Your task to perform on an android device: Go to accessibility settings Image 0: 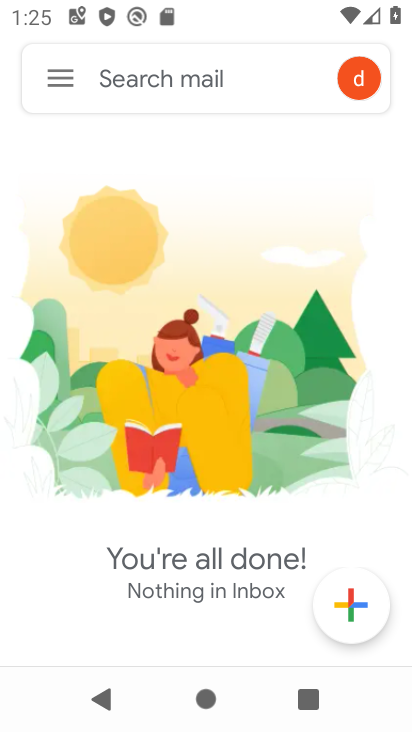
Step 0: press home button
Your task to perform on an android device: Go to accessibility settings Image 1: 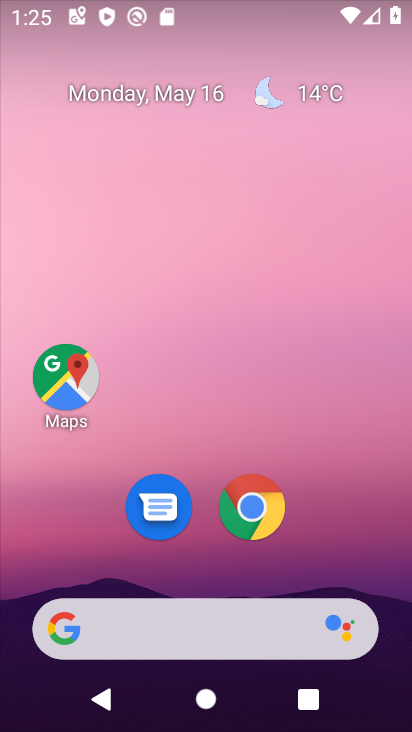
Step 1: drag from (244, 493) to (273, 265)
Your task to perform on an android device: Go to accessibility settings Image 2: 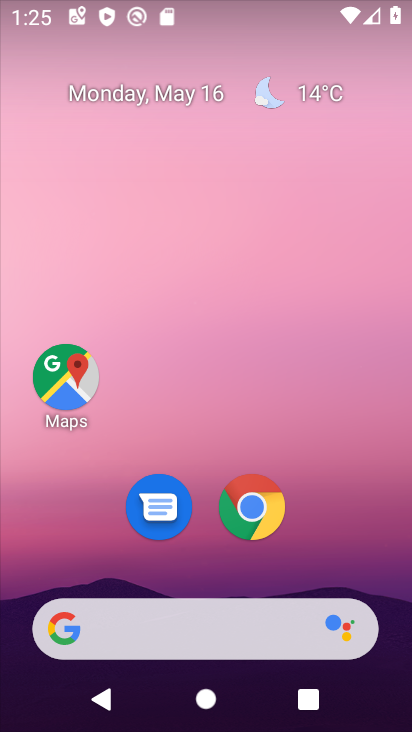
Step 2: drag from (210, 562) to (250, 287)
Your task to perform on an android device: Go to accessibility settings Image 3: 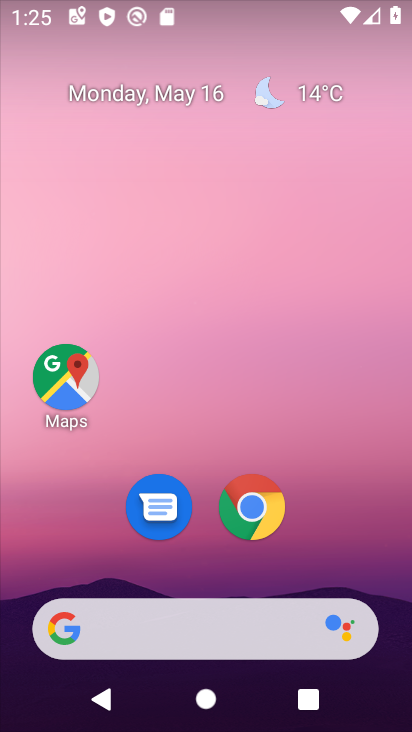
Step 3: drag from (214, 572) to (245, 244)
Your task to perform on an android device: Go to accessibility settings Image 4: 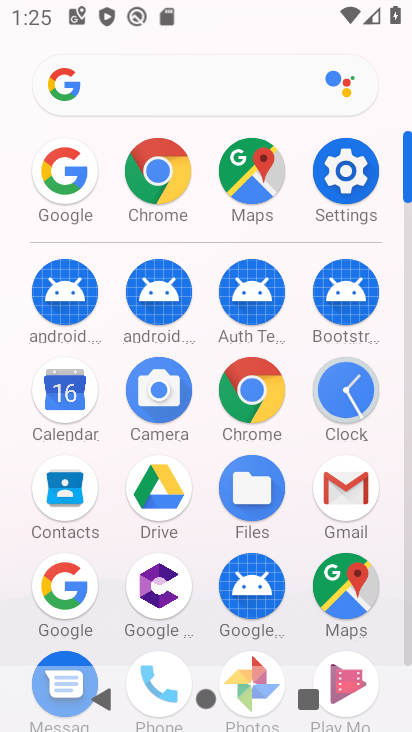
Step 4: click (356, 188)
Your task to perform on an android device: Go to accessibility settings Image 5: 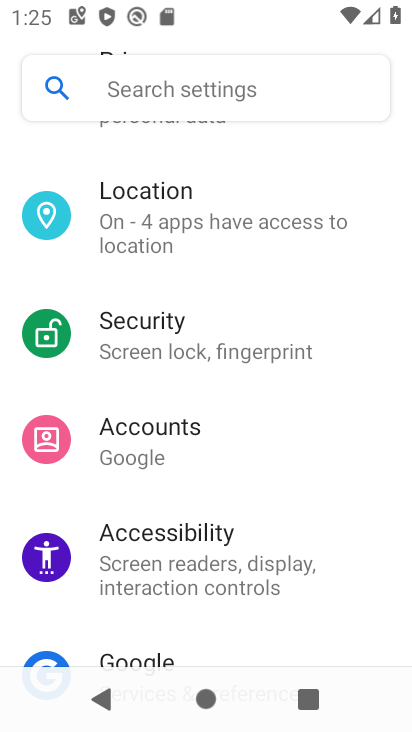
Step 5: click (149, 529)
Your task to perform on an android device: Go to accessibility settings Image 6: 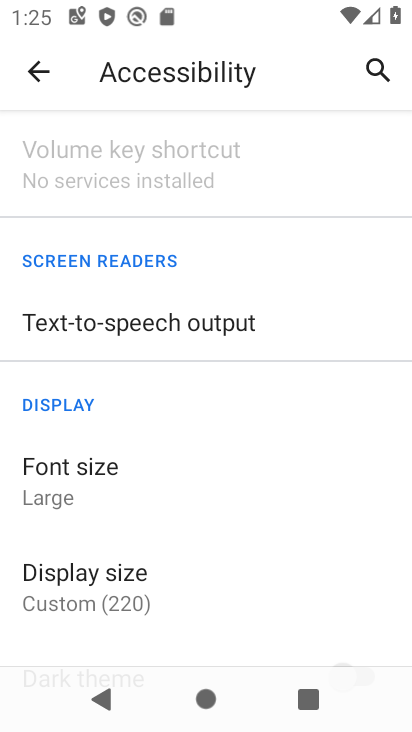
Step 6: task complete